Your task to perform on an android device: Open Amazon Image 0: 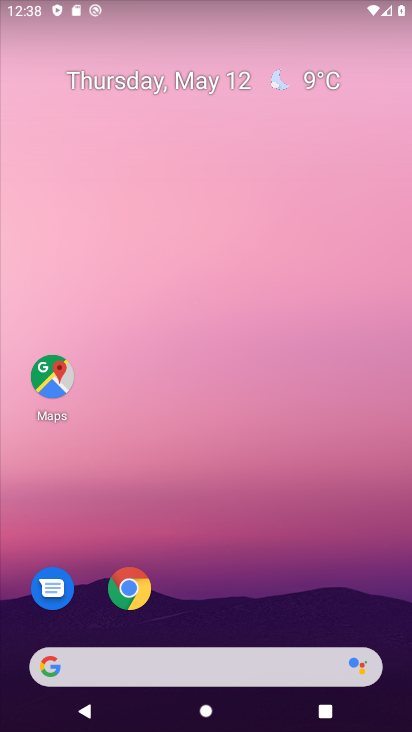
Step 0: drag from (364, 630) to (240, 241)
Your task to perform on an android device: Open Amazon Image 1: 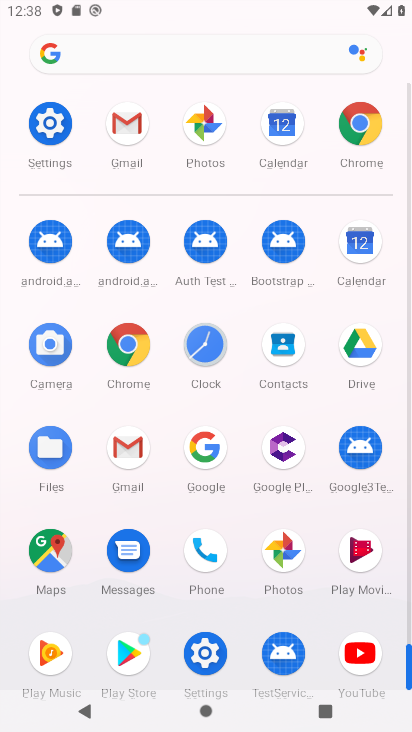
Step 1: click (353, 121)
Your task to perform on an android device: Open Amazon Image 2: 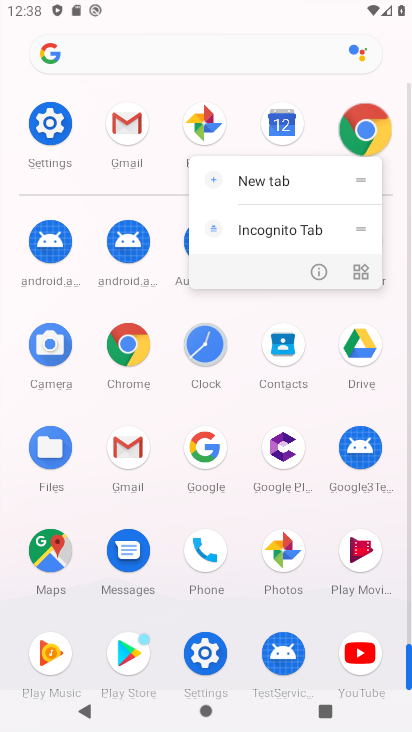
Step 2: click (359, 130)
Your task to perform on an android device: Open Amazon Image 3: 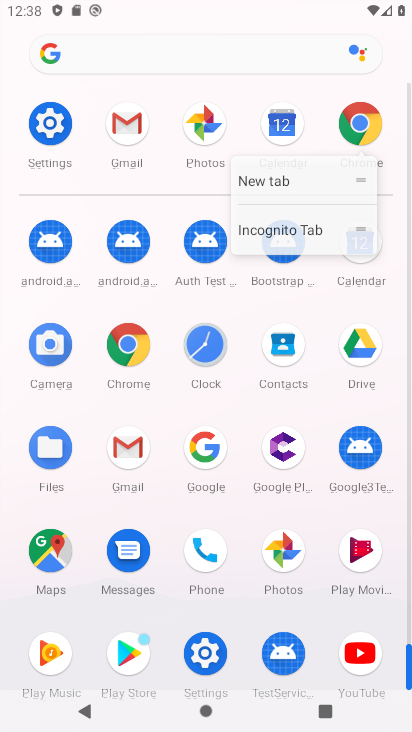
Step 3: click (362, 141)
Your task to perform on an android device: Open Amazon Image 4: 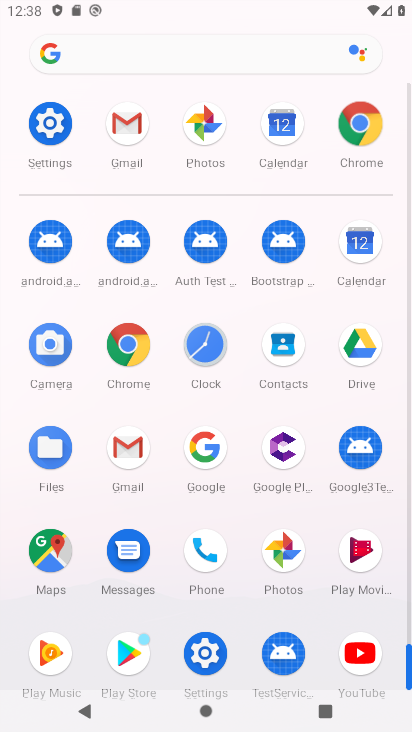
Step 4: click (363, 150)
Your task to perform on an android device: Open Amazon Image 5: 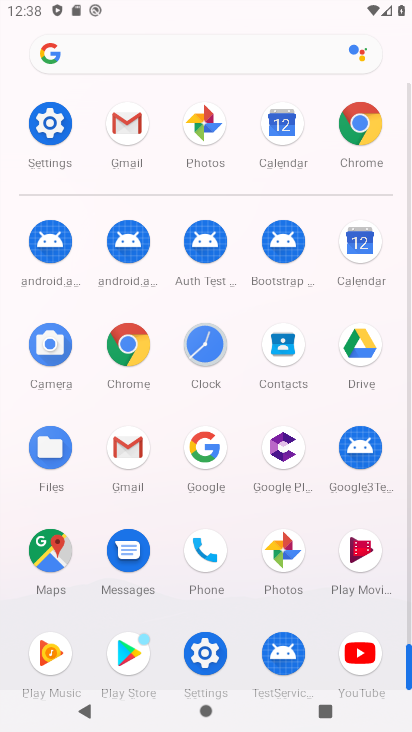
Step 5: click (363, 150)
Your task to perform on an android device: Open Amazon Image 6: 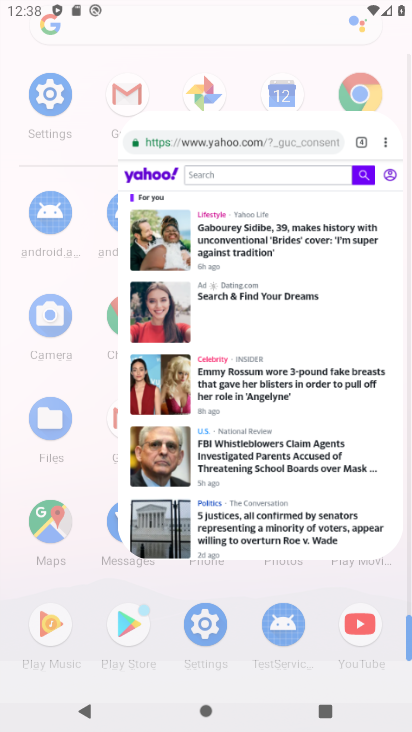
Step 6: click (363, 137)
Your task to perform on an android device: Open Amazon Image 7: 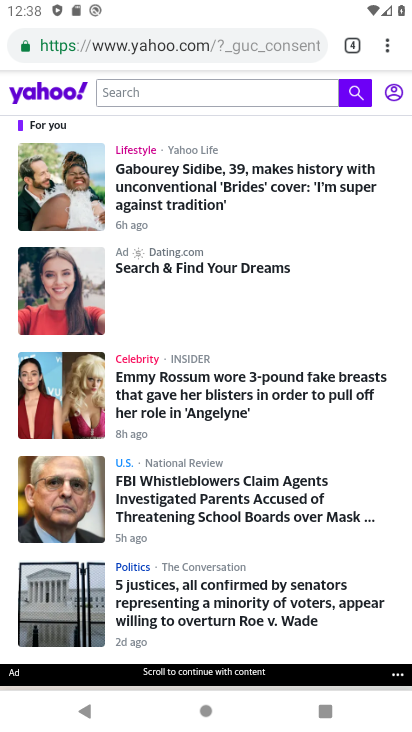
Step 7: drag from (389, 43) to (247, 90)
Your task to perform on an android device: Open Amazon Image 8: 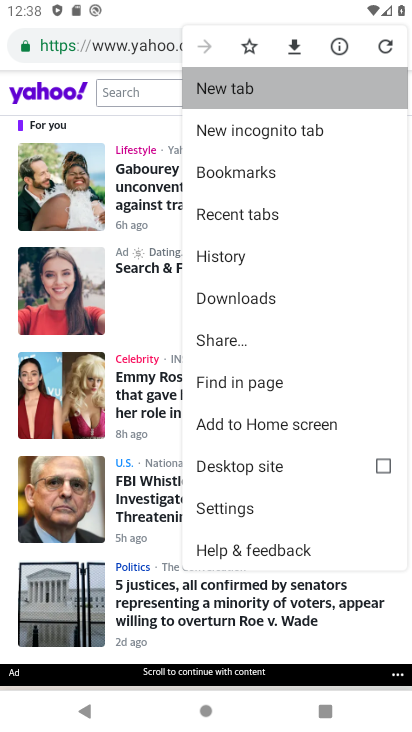
Step 8: click (251, 90)
Your task to perform on an android device: Open Amazon Image 9: 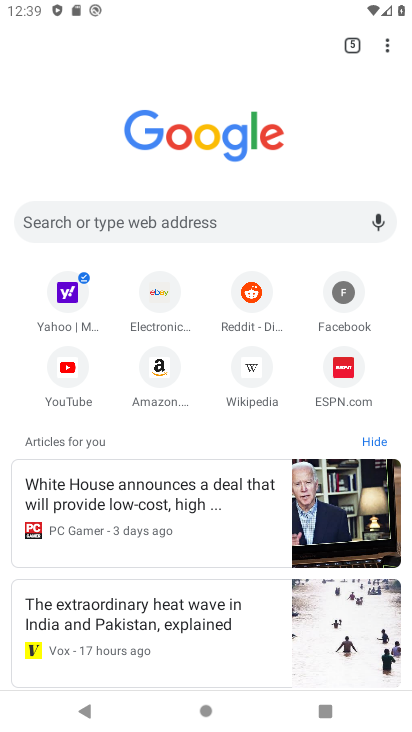
Step 9: click (159, 369)
Your task to perform on an android device: Open Amazon Image 10: 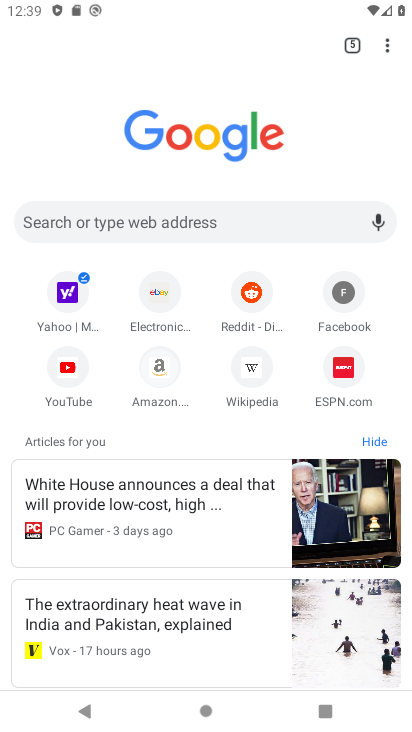
Step 10: click (159, 369)
Your task to perform on an android device: Open Amazon Image 11: 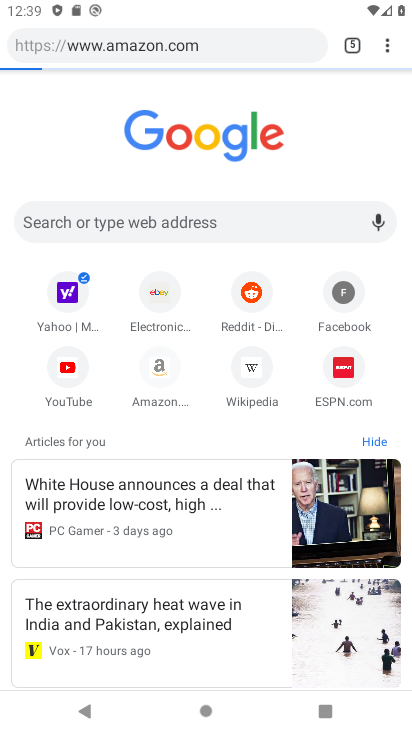
Step 11: click (160, 369)
Your task to perform on an android device: Open Amazon Image 12: 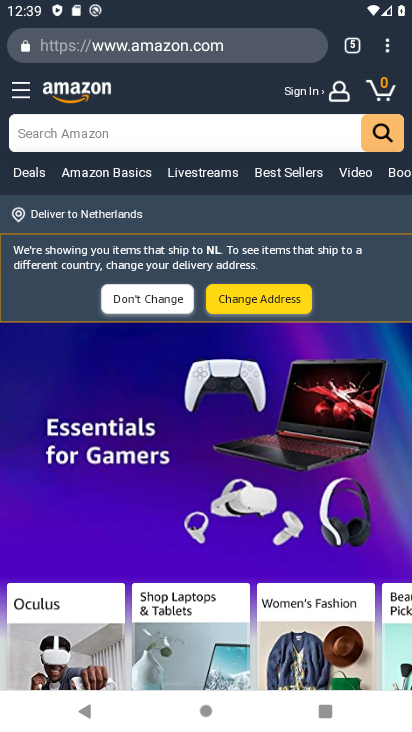
Step 12: task complete